Your task to perform on an android device: delete a single message in the gmail app Image 0: 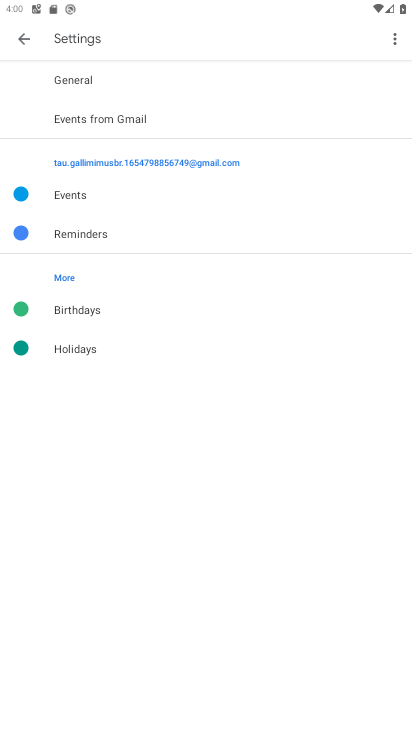
Step 0: press home button
Your task to perform on an android device: delete a single message in the gmail app Image 1: 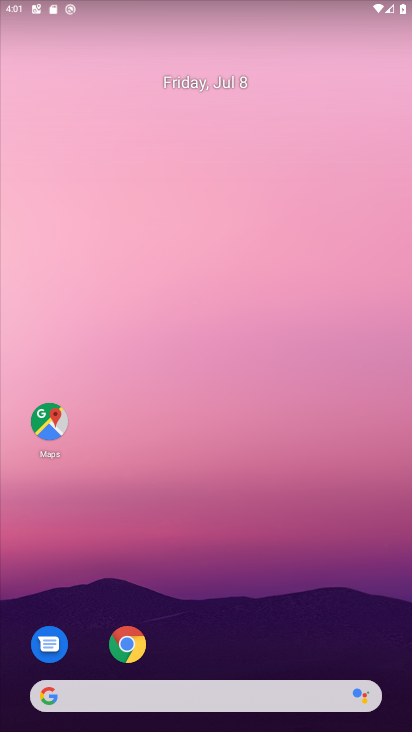
Step 1: drag from (320, 596) to (309, 84)
Your task to perform on an android device: delete a single message in the gmail app Image 2: 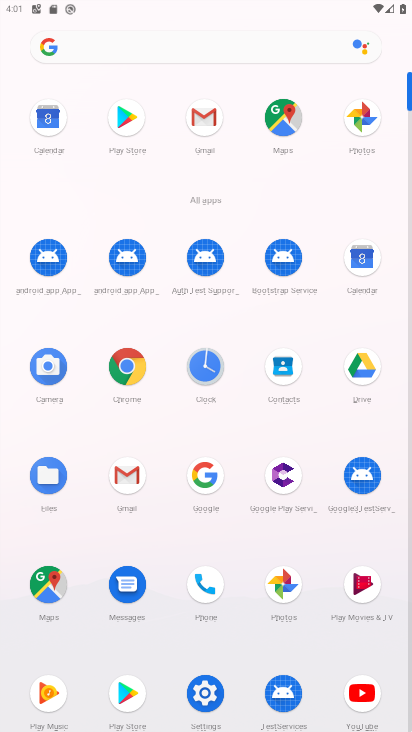
Step 2: click (128, 476)
Your task to perform on an android device: delete a single message in the gmail app Image 3: 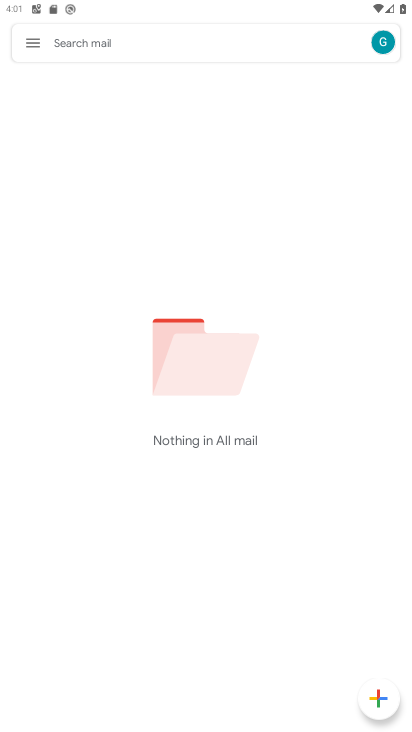
Step 3: click (37, 42)
Your task to perform on an android device: delete a single message in the gmail app Image 4: 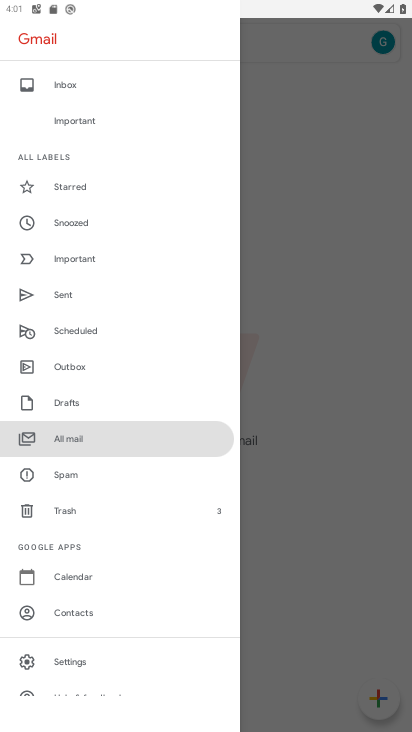
Step 4: click (133, 432)
Your task to perform on an android device: delete a single message in the gmail app Image 5: 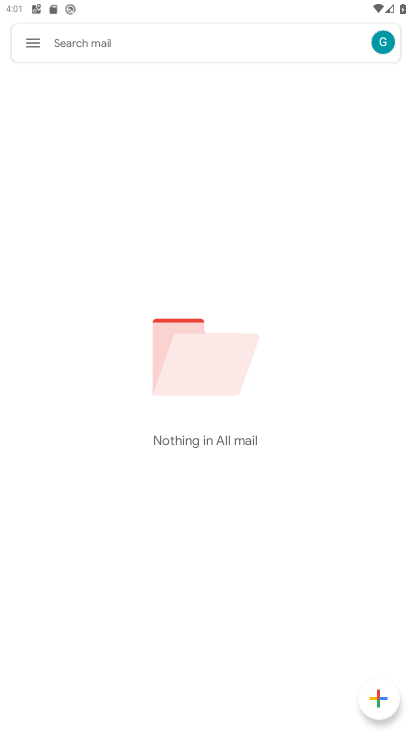
Step 5: task complete